Your task to perform on an android device: Go to accessibility settings Image 0: 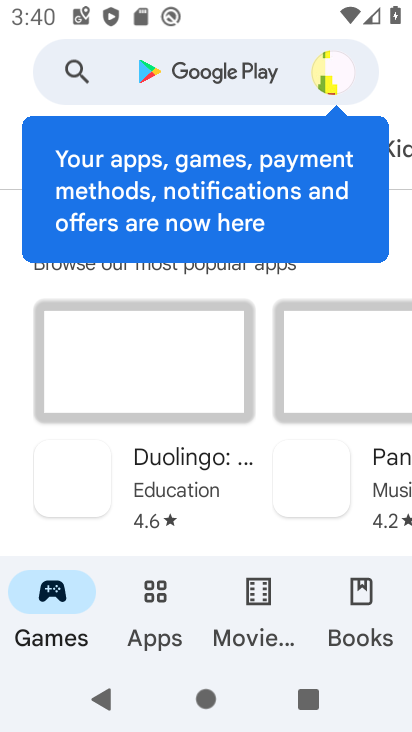
Step 0: press home button
Your task to perform on an android device: Go to accessibility settings Image 1: 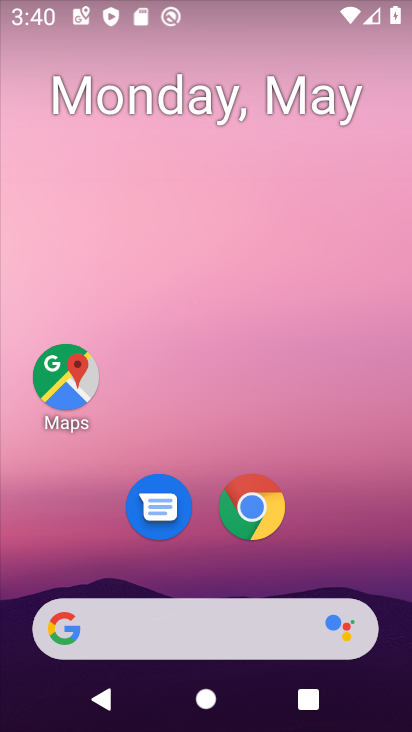
Step 1: drag from (204, 580) to (226, 191)
Your task to perform on an android device: Go to accessibility settings Image 2: 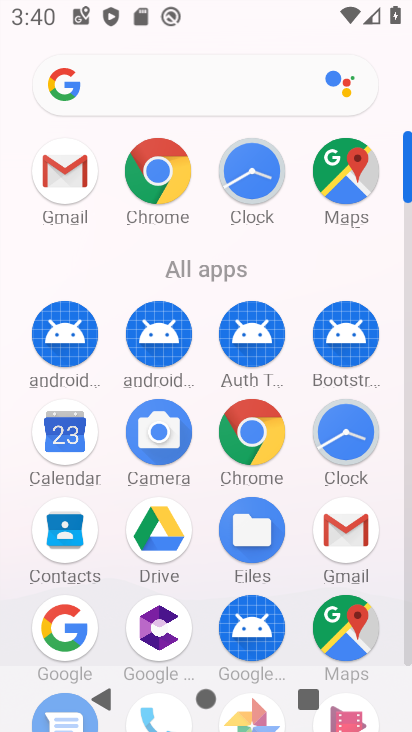
Step 2: drag from (201, 578) to (251, 161)
Your task to perform on an android device: Go to accessibility settings Image 3: 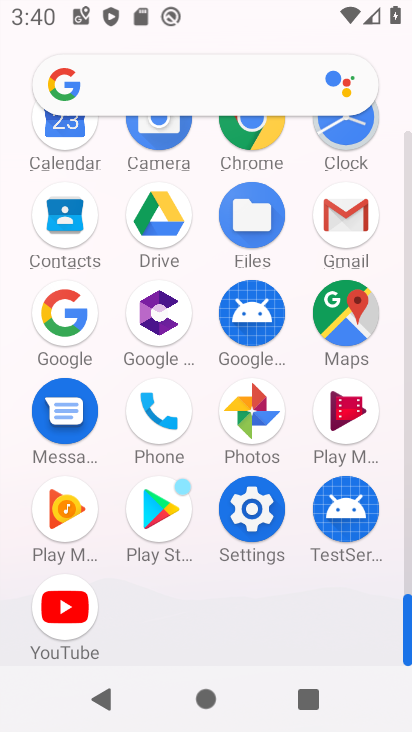
Step 3: click (253, 510)
Your task to perform on an android device: Go to accessibility settings Image 4: 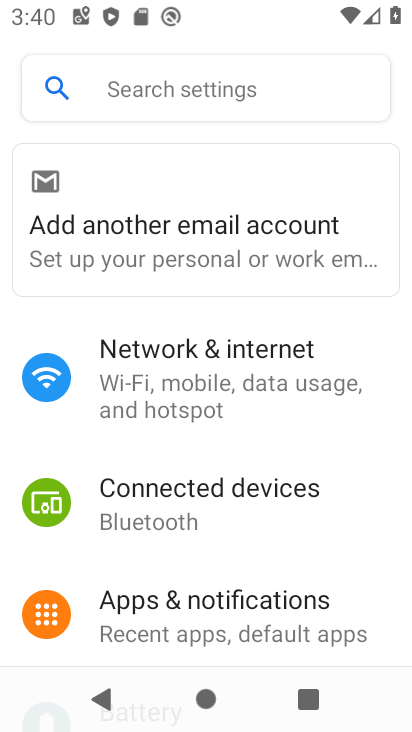
Step 4: drag from (113, 605) to (197, 69)
Your task to perform on an android device: Go to accessibility settings Image 5: 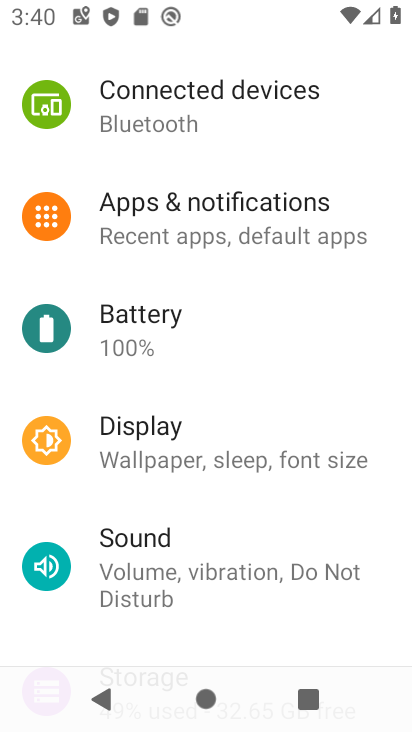
Step 5: drag from (87, 651) to (210, 191)
Your task to perform on an android device: Go to accessibility settings Image 6: 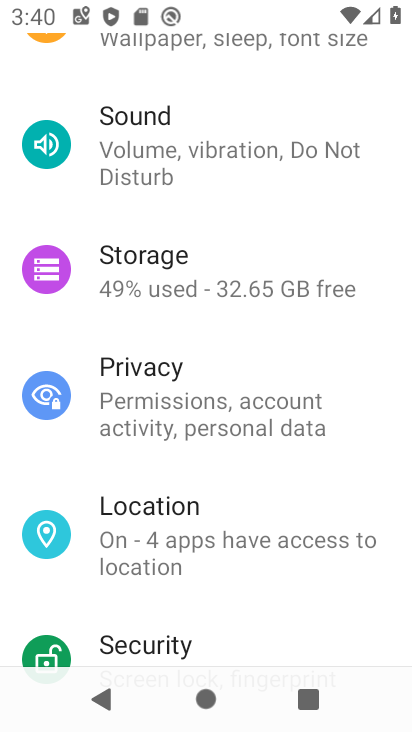
Step 6: drag from (81, 583) to (107, 200)
Your task to perform on an android device: Go to accessibility settings Image 7: 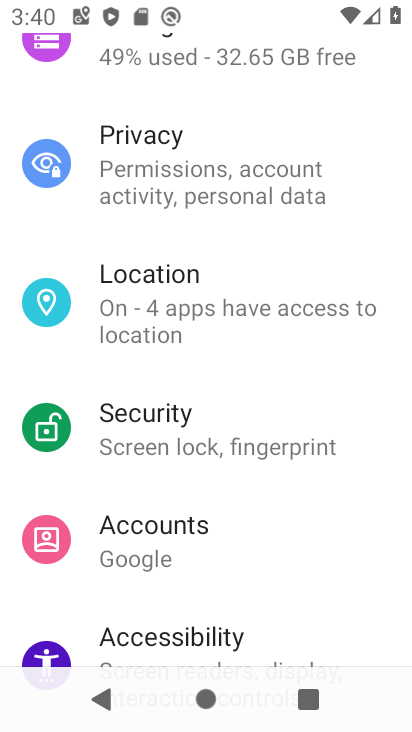
Step 7: click (146, 645)
Your task to perform on an android device: Go to accessibility settings Image 8: 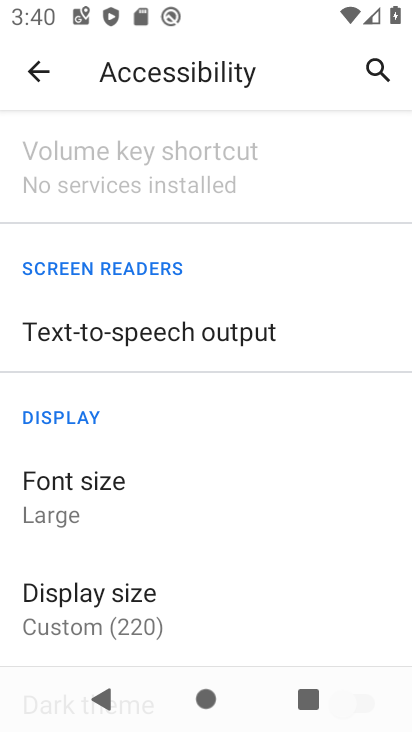
Step 8: task complete